Your task to perform on an android device: uninstall "LinkedIn" Image 0: 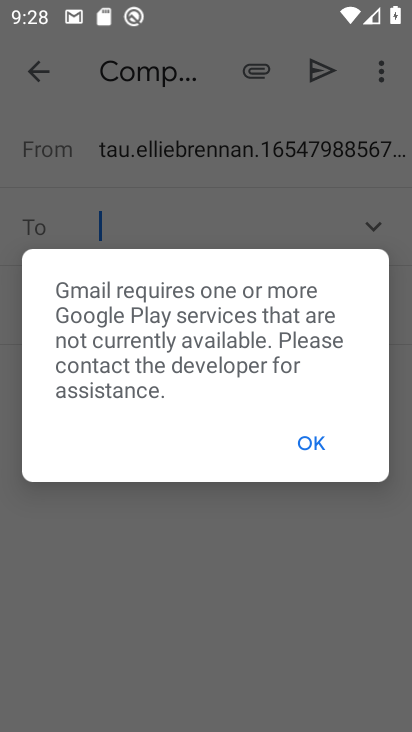
Step 0: press home button
Your task to perform on an android device: uninstall "LinkedIn" Image 1: 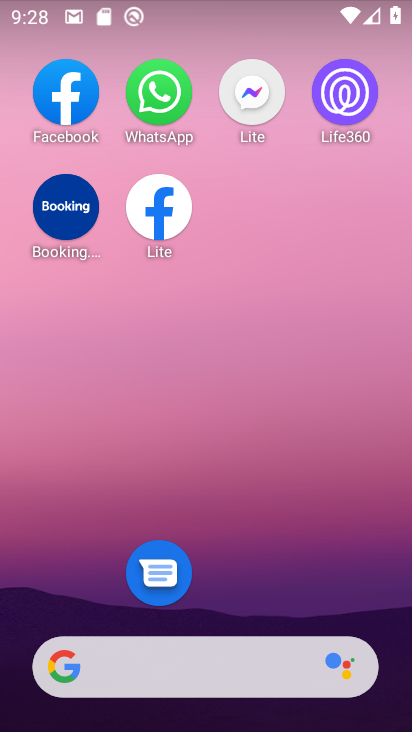
Step 1: drag from (214, 597) to (202, 306)
Your task to perform on an android device: uninstall "LinkedIn" Image 2: 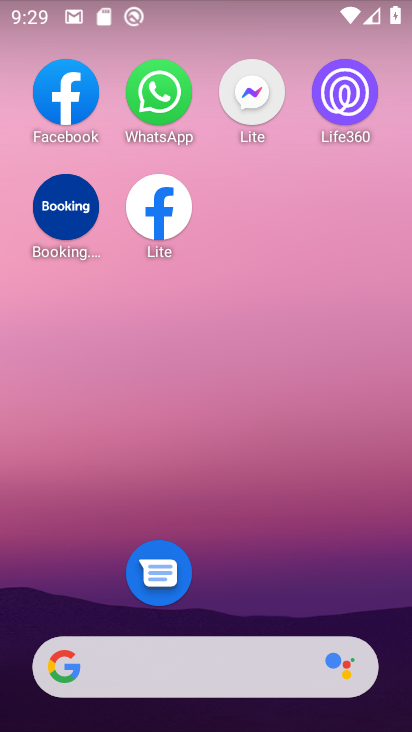
Step 2: drag from (215, 594) to (234, 11)
Your task to perform on an android device: uninstall "LinkedIn" Image 3: 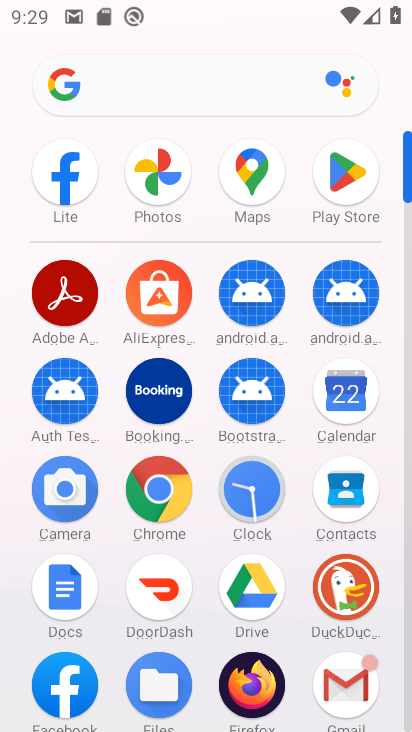
Step 3: click (348, 185)
Your task to perform on an android device: uninstall "LinkedIn" Image 4: 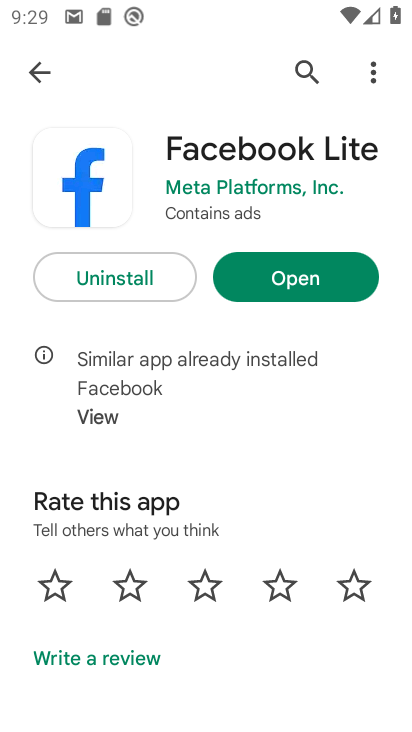
Step 4: click (28, 67)
Your task to perform on an android device: uninstall "LinkedIn" Image 5: 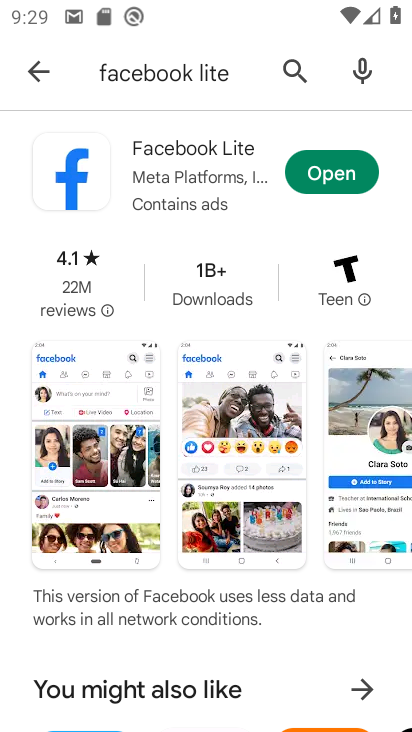
Step 5: click (183, 84)
Your task to perform on an android device: uninstall "LinkedIn" Image 6: 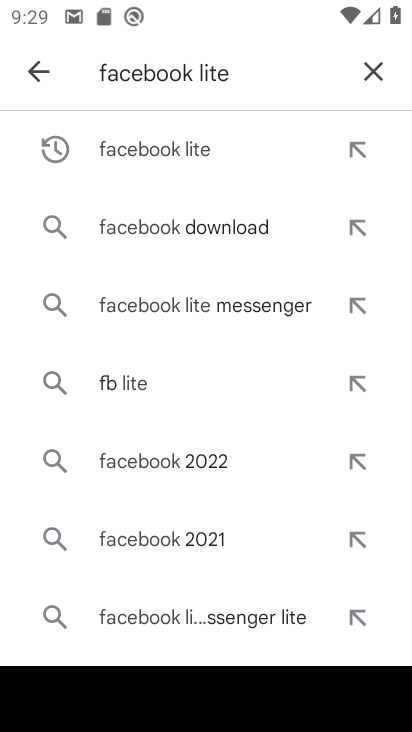
Step 6: click (371, 72)
Your task to perform on an android device: uninstall "LinkedIn" Image 7: 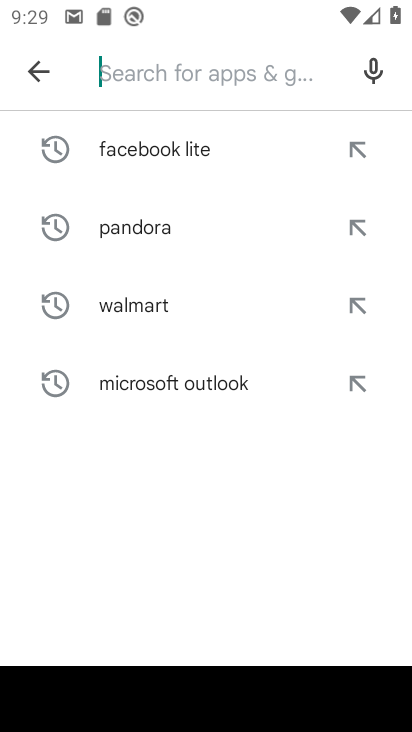
Step 7: type "linkedin"
Your task to perform on an android device: uninstall "LinkedIn" Image 8: 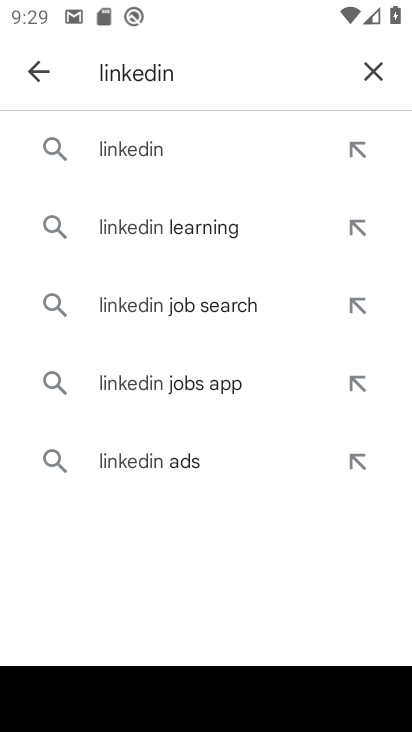
Step 8: click (149, 157)
Your task to perform on an android device: uninstall "LinkedIn" Image 9: 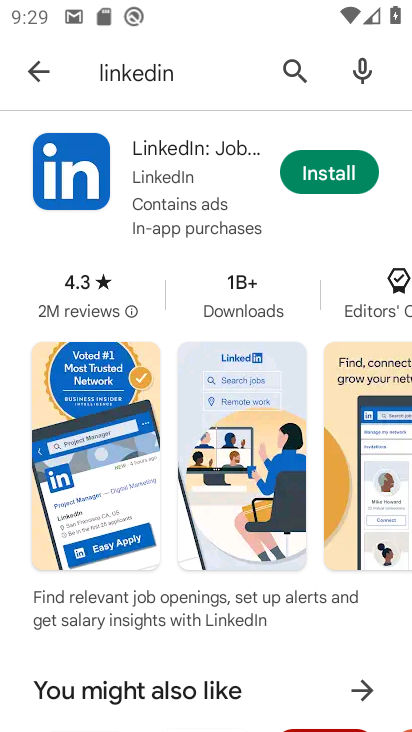
Step 9: task complete